Your task to perform on an android device: Open Amazon Image 0: 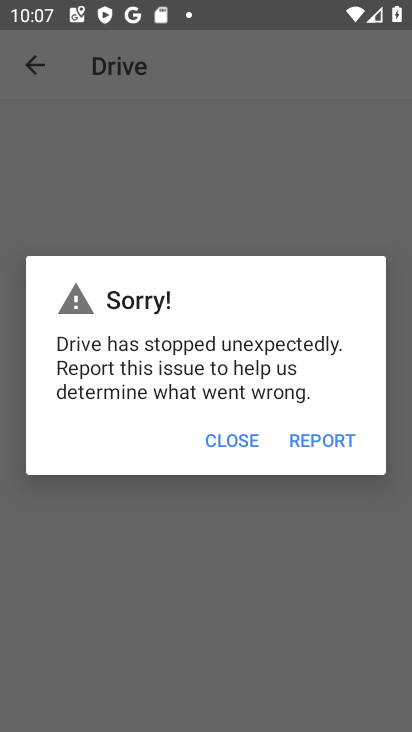
Step 0: press home button
Your task to perform on an android device: Open Amazon Image 1: 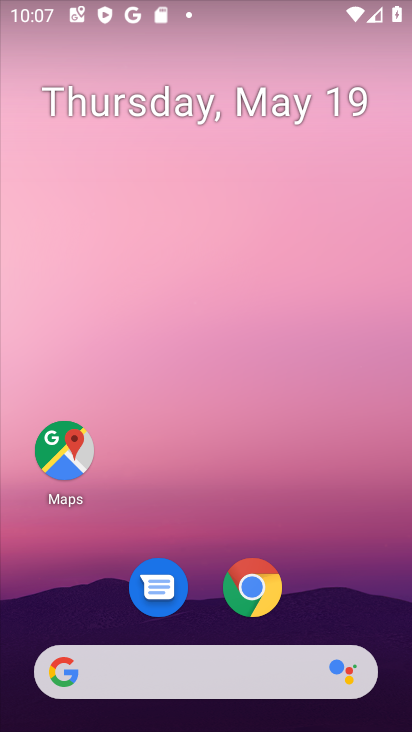
Step 1: click (270, 596)
Your task to perform on an android device: Open Amazon Image 2: 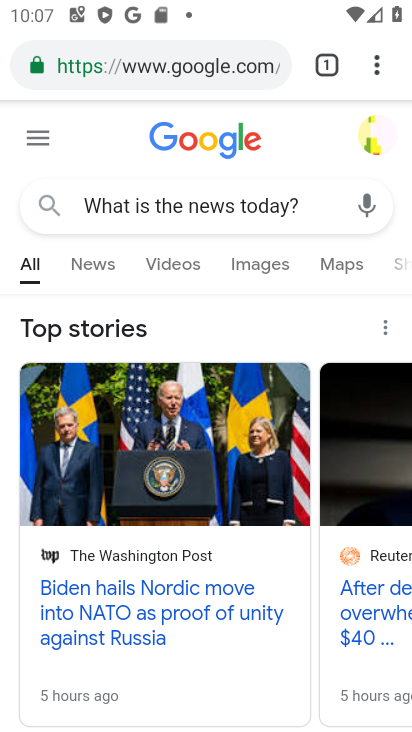
Step 2: click (330, 76)
Your task to perform on an android device: Open Amazon Image 3: 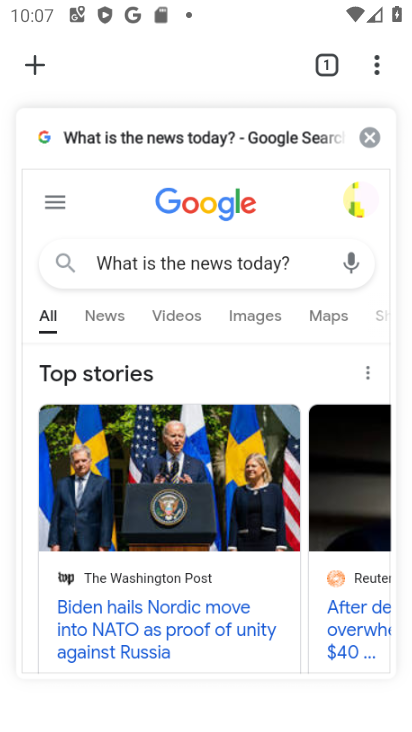
Step 3: click (30, 62)
Your task to perform on an android device: Open Amazon Image 4: 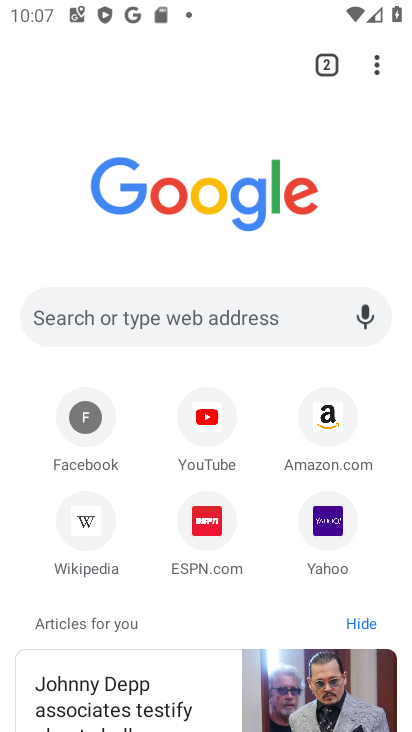
Step 4: click (318, 423)
Your task to perform on an android device: Open Amazon Image 5: 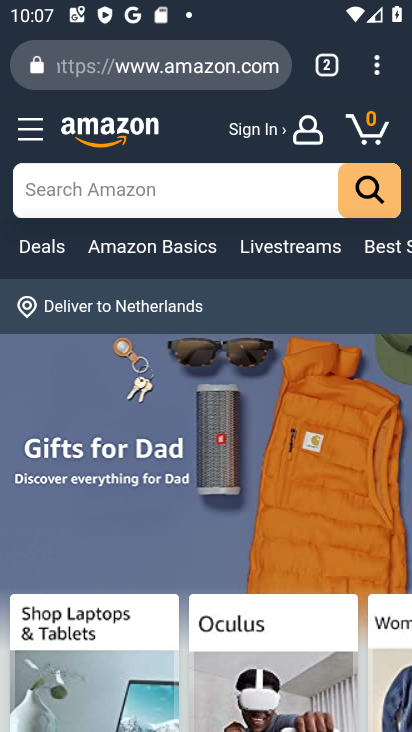
Step 5: task complete